Your task to perform on an android device: Open Android settings Image 0: 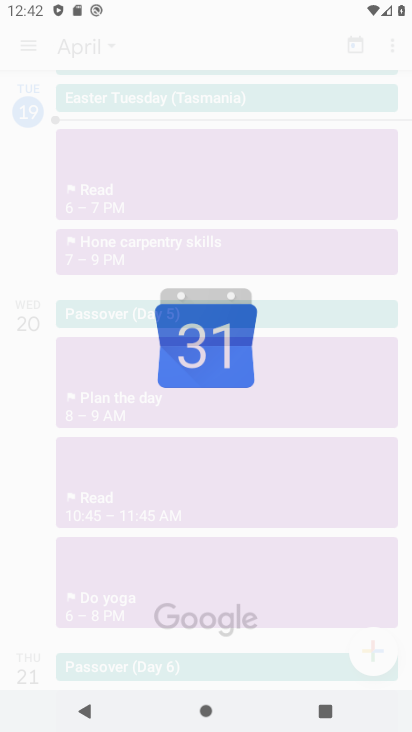
Step 0: click (139, 576)
Your task to perform on an android device: Open Android settings Image 1: 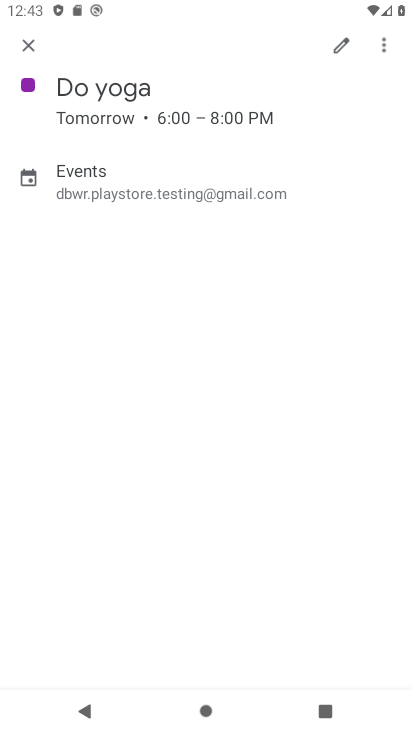
Step 1: press home button
Your task to perform on an android device: Open Android settings Image 2: 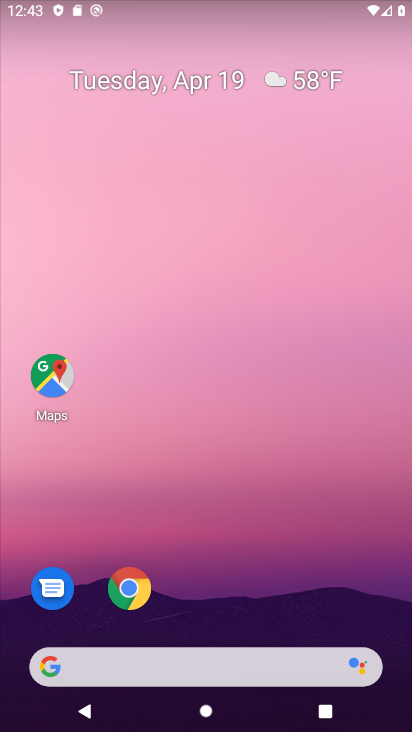
Step 2: drag from (216, 413) to (209, 168)
Your task to perform on an android device: Open Android settings Image 3: 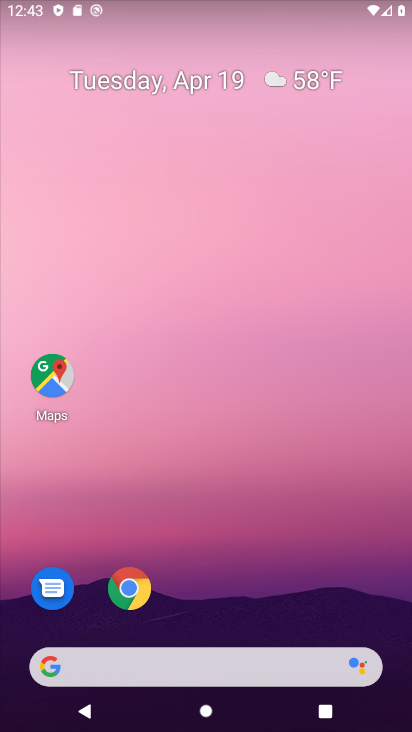
Step 3: drag from (211, 625) to (179, 130)
Your task to perform on an android device: Open Android settings Image 4: 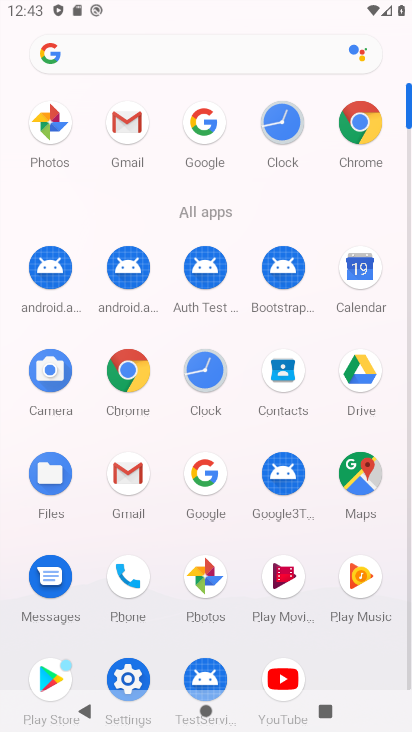
Step 4: click (137, 666)
Your task to perform on an android device: Open Android settings Image 5: 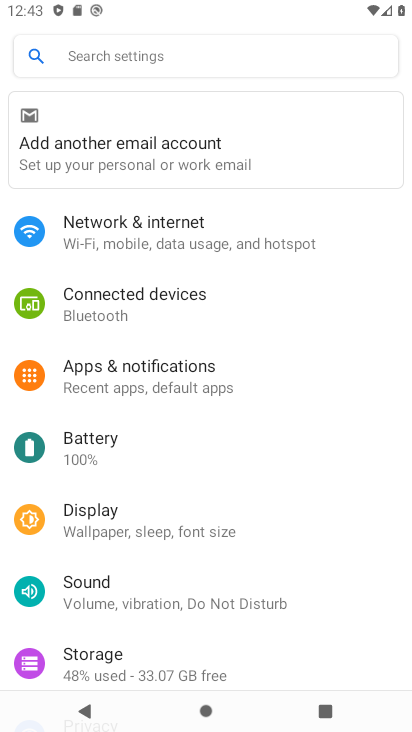
Step 5: task complete